Your task to perform on an android device: toggle location history Image 0: 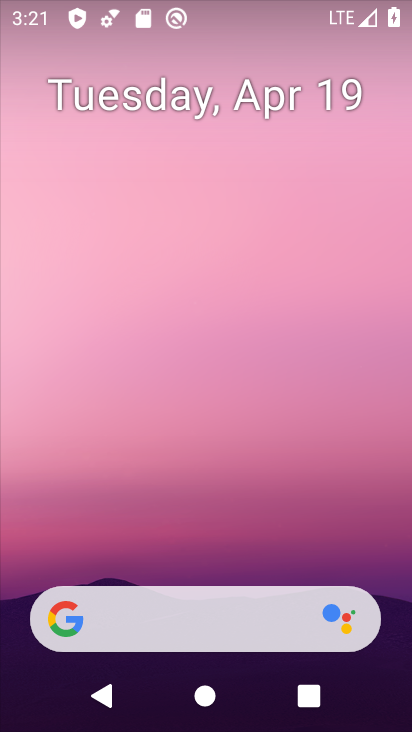
Step 0: drag from (221, 531) to (250, 31)
Your task to perform on an android device: toggle location history Image 1: 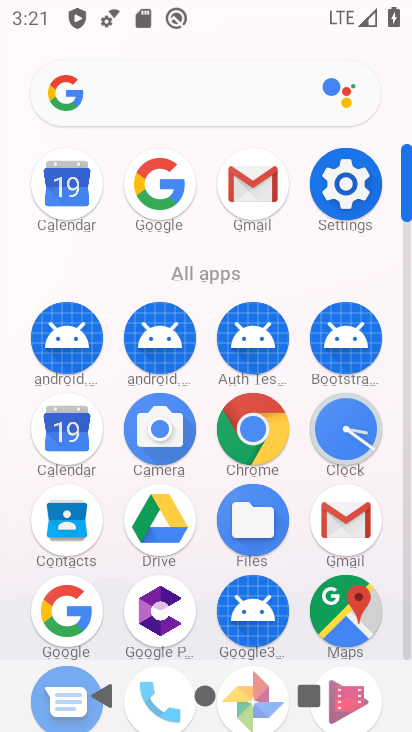
Step 1: click (349, 187)
Your task to perform on an android device: toggle location history Image 2: 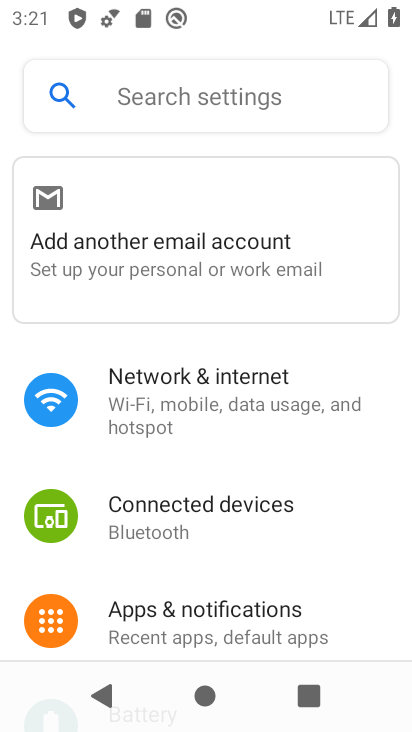
Step 2: drag from (185, 492) to (212, 364)
Your task to perform on an android device: toggle location history Image 3: 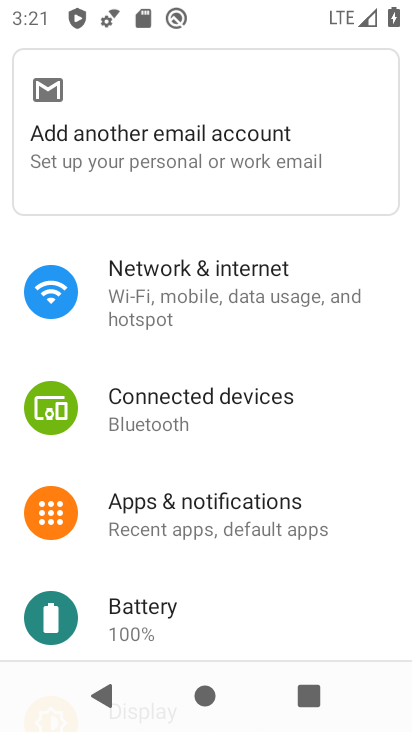
Step 3: drag from (213, 464) to (235, 399)
Your task to perform on an android device: toggle location history Image 4: 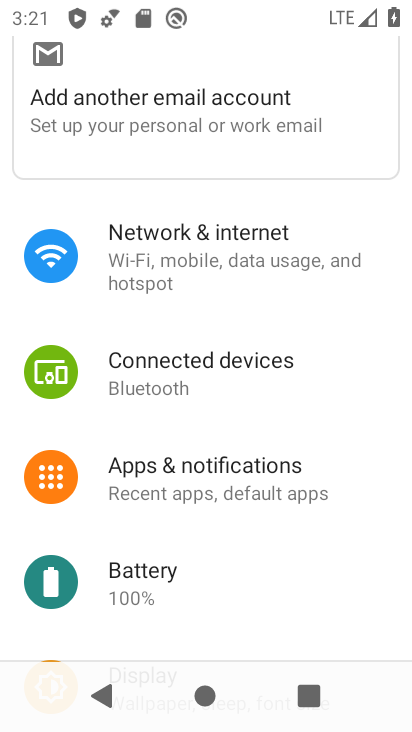
Step 4: drag from (161, 549) to (209, 431)
Your task to perform on an android device: toggle location history Image 5: 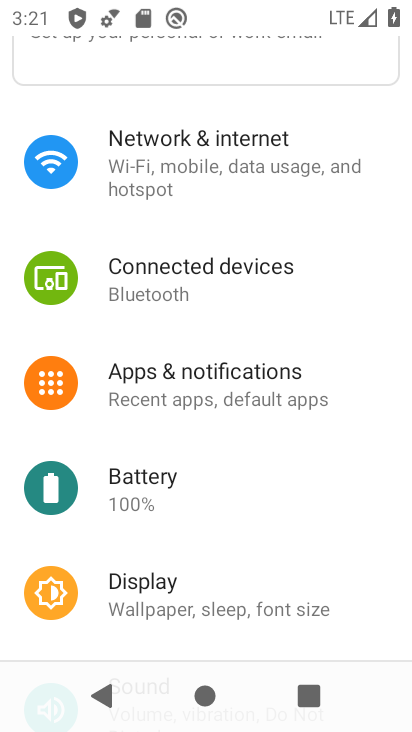
Step 5: drag from (170, 540) to (231, 412)
Your task to perform on an android device: toggle location history Image 6: 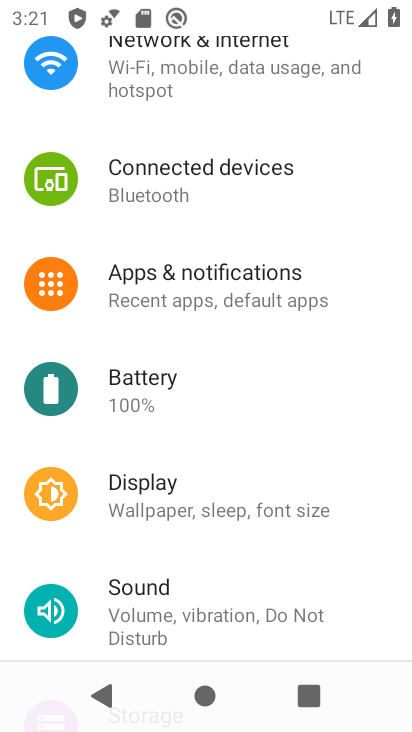
Step 6: drag from (164, 543) to (232, 422)
Your task to perform on an android device: toggle location history Image 7: 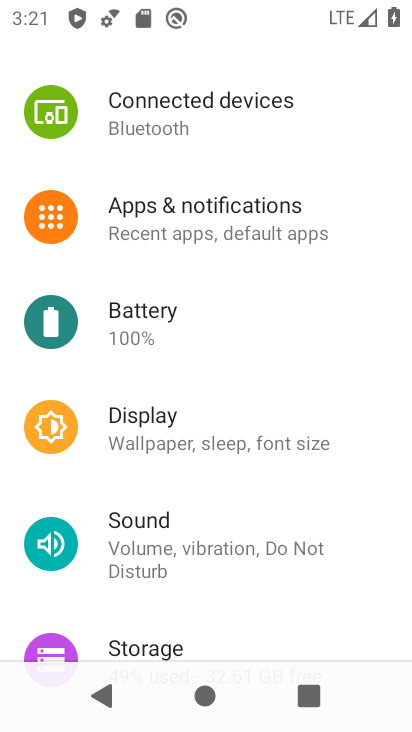
Step 7: drag from (171, 496) to (228, 394)
Your task to perform on an android device: toggle location history Image 8: 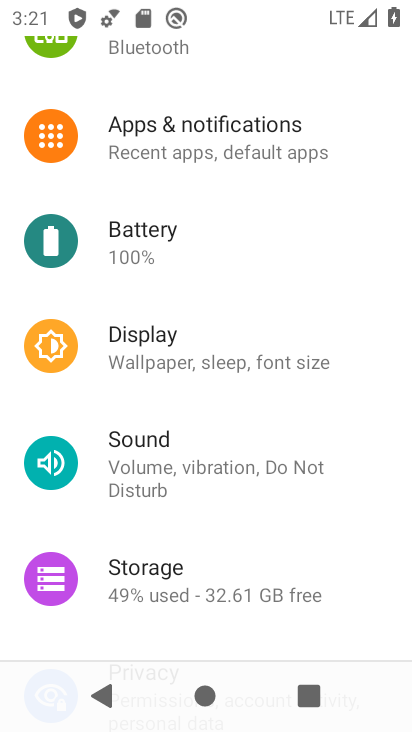
Step 8: drag from (162, 533) to (211, 393)
Your task to perform on an android device: toggle location history Image 9: 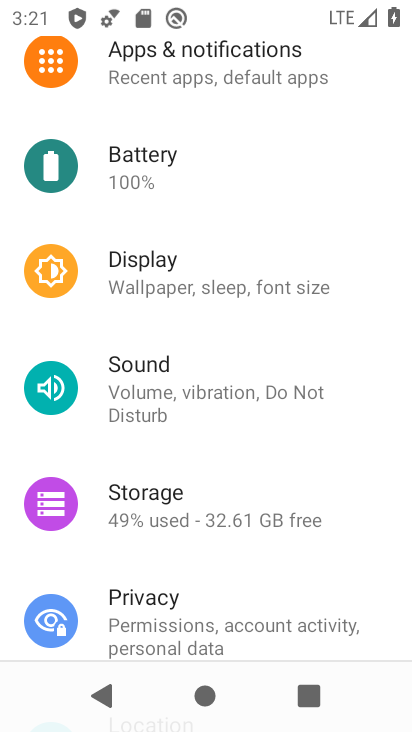
Step 9: drag from (141, 548) to (171, 414)
Your task to perform on an android device: toggle location history Image 10: 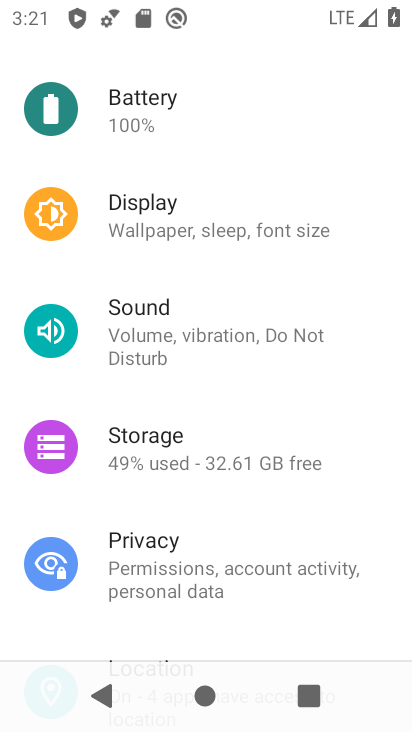
Step 10: drag from (145, 605) to (182, 436)
Your task to perform on an android device: toggle location history Image 11: 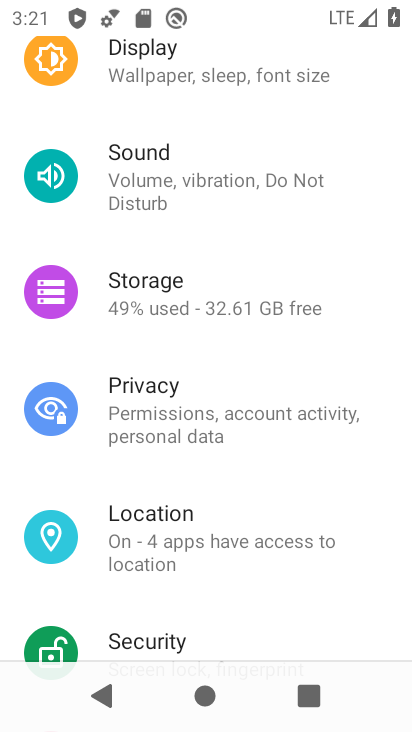
Step 11: click (153, 514)
Your task to perform on an android device: toggle location history Image 12: 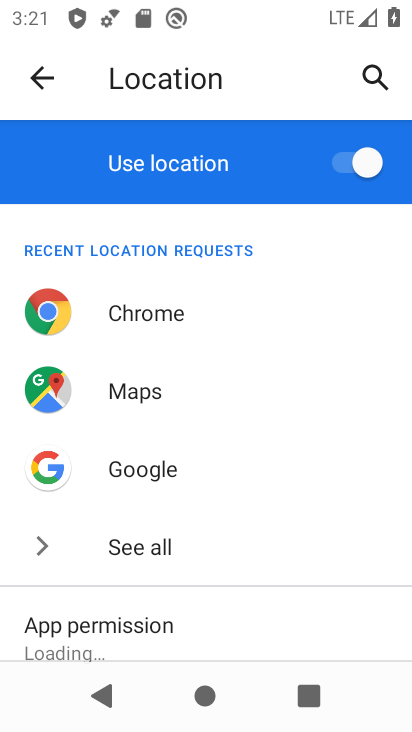
Step 12: drag from (191, 549) to (230, 480)
Your task to perform on an android device: toggle location history Image 13: 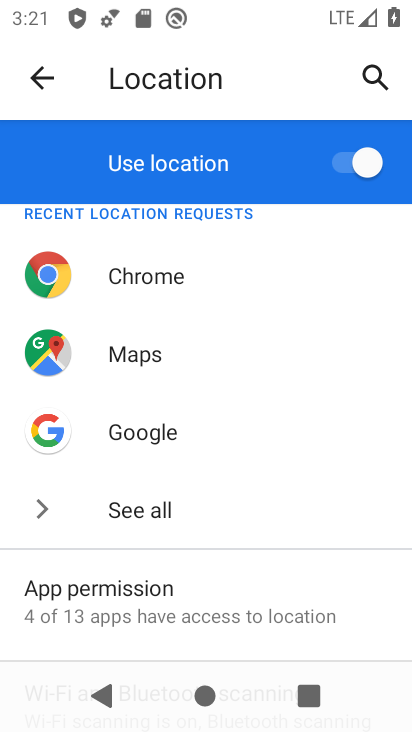
Step 13: drag from (192, 576) to (237, 495)
Your task to perform on an android device: toggle location history Image 14: 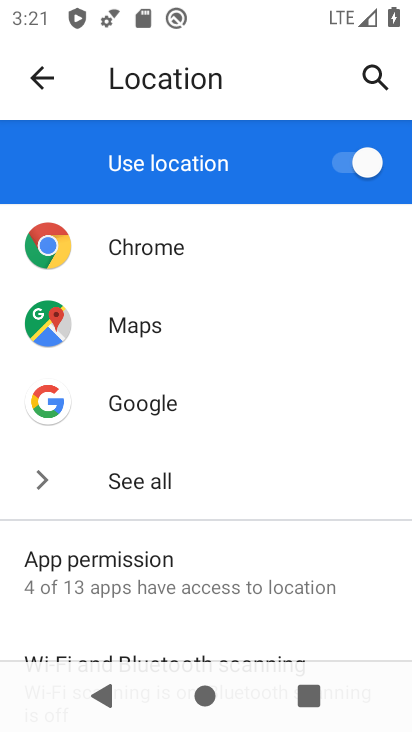
Step 14: drag from (196, 616) to (248, 503)
Your task to perform on an android device: toggle location history Image 15: 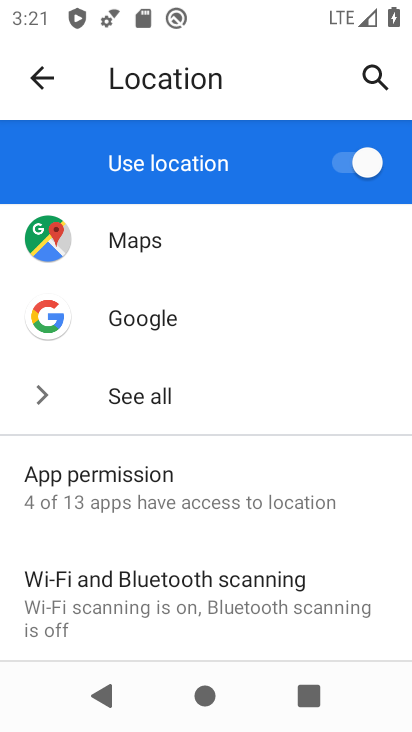
Step 15: drag from (192, 637) to (270, 478)
Your task to perform on an android device: toggle location history Image 16: 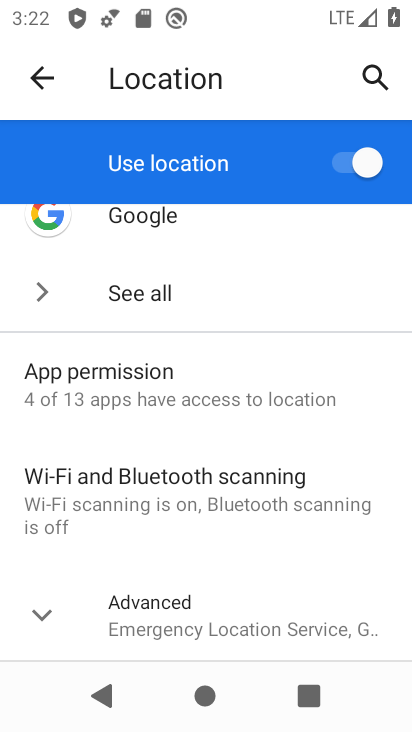
Step 16: click (202, 623)
Your task to perform on an android device: toggle location history Image 17: 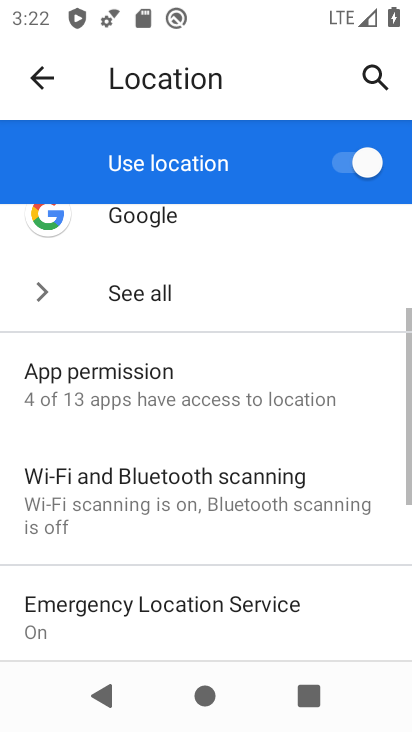
Step 17: drag from (202, 623) to (275, 454)
Your task to perform on an android device: toggle location history Image 18: 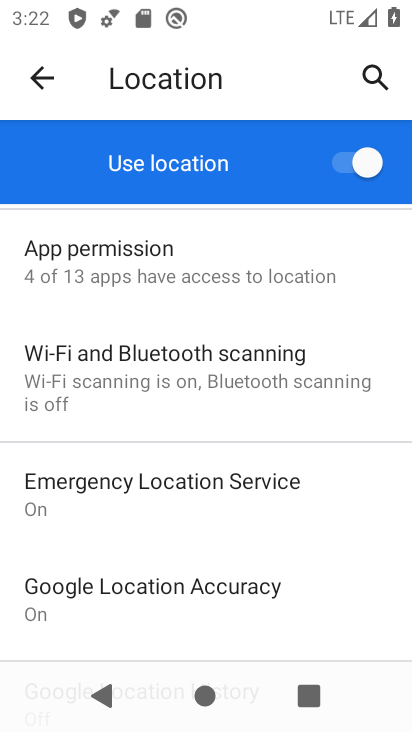
Step 18: drag from (180, 619) to (257, 486)
Your task to perform on an android device: toggle location history Image 19: 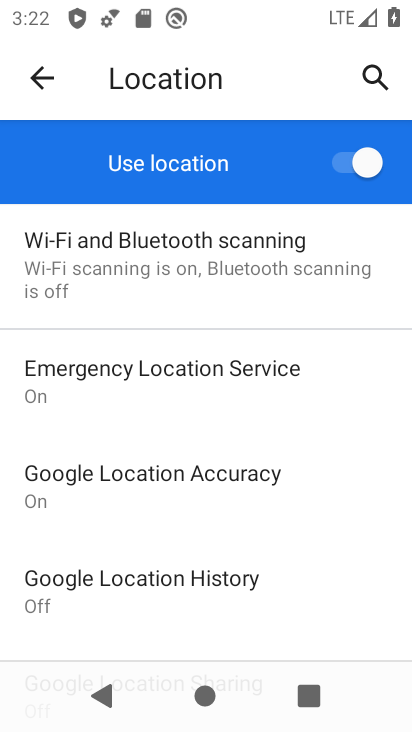
Step 19: click (155, 577)
Your task to perform on an android device: toggle location history Image 20: 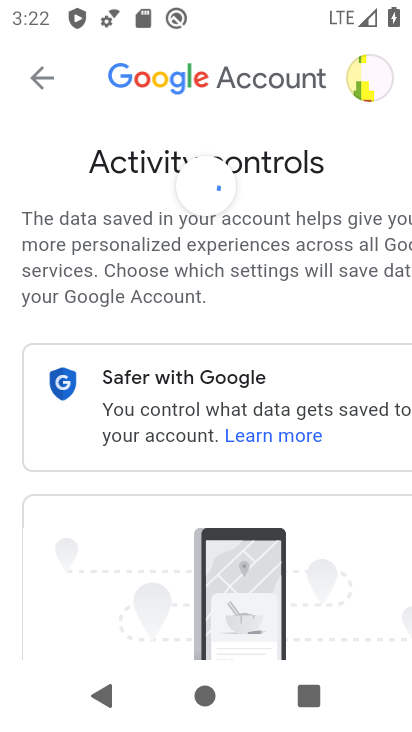
Step 20: drag from (174, 600) to (219, 387)
Your task to perform on an android device: toggle location history Image 21: 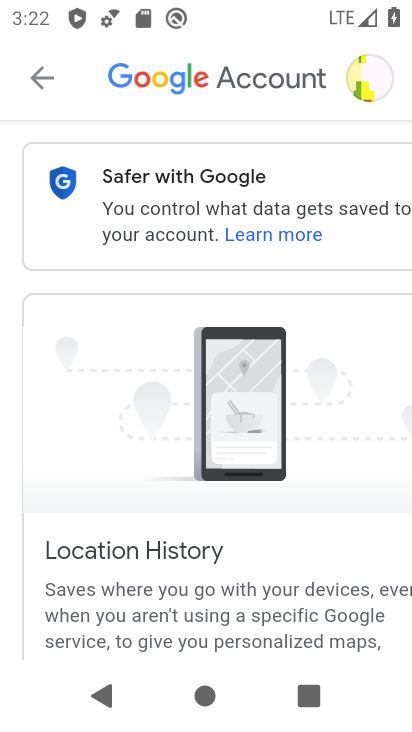
Step 21: drag from (163, 582) to (215, 420)
Your task to perform on an android device: toggle location history Image 22: 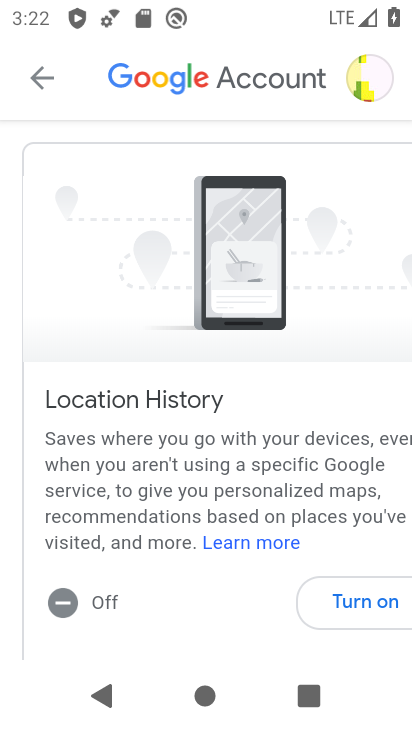
Step 22: click (363, 605)
Your task to perform on an android device: toggle location history Image 23: 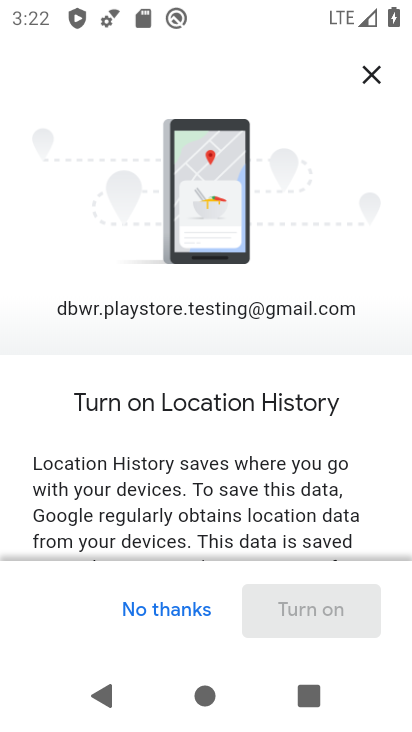
Step 23: task complete